Your task to perform on an android device: turn off notifications settings in the gmail app Image 0: 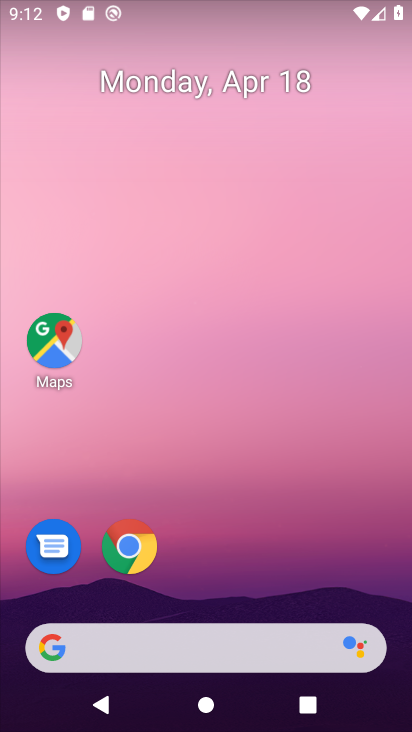
Step 0: drag from (253, 513) to (245, 88)
Your task to perform on an android device: turn off notifications settings in the gmail app Image 1: 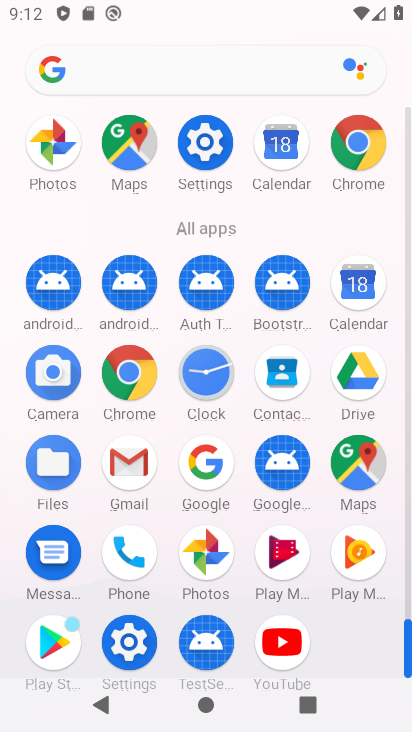
Step 1: click (135, 456)
Your task to perform on an android device: turn off notifications settings in the gmail app Image 2: 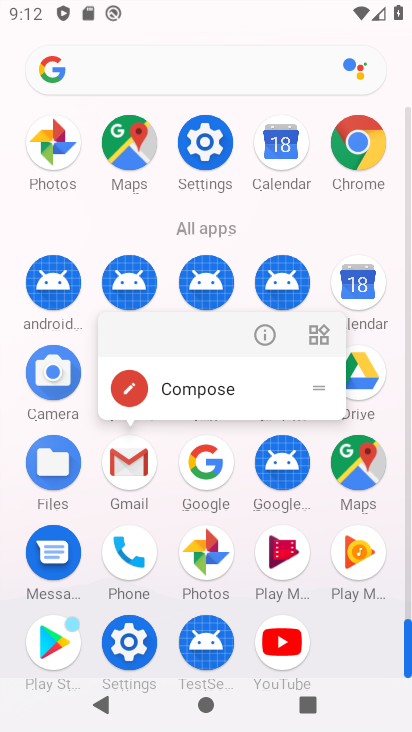
Step 2: click (258, 336)
Your task to perform on an android device: turn off notifications settings in the gmail app Image 3: 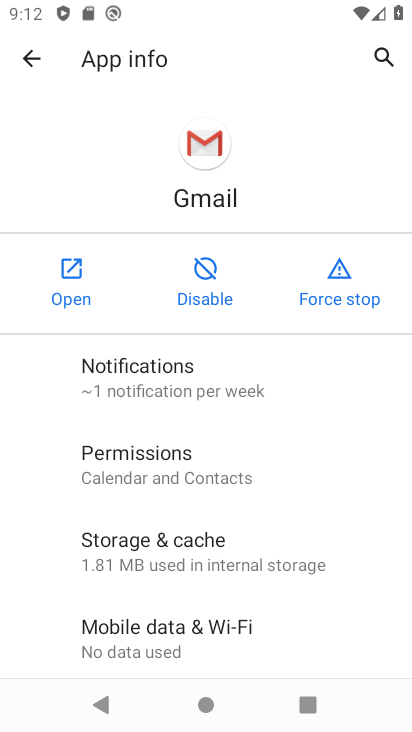
Step 3: click (179, 382)
Your task to perform on an android device: turn off notifications settings in the gmail app Image 4: 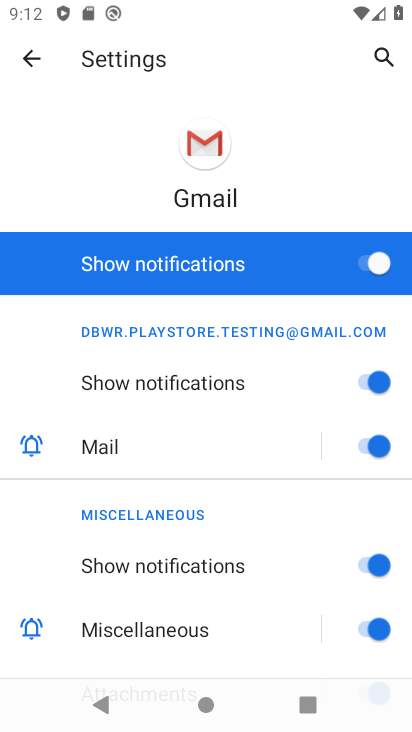
Step 4: click (369, 257)
Your task to perform on an android device: turn off notifications settings in the gmail app Image 5: 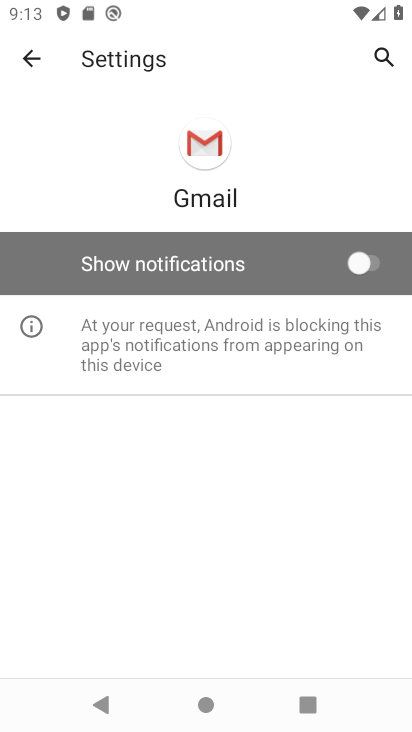
Step 5: task complete